Your task to perform on an android device: toggle translation in the chrome app Image 0: 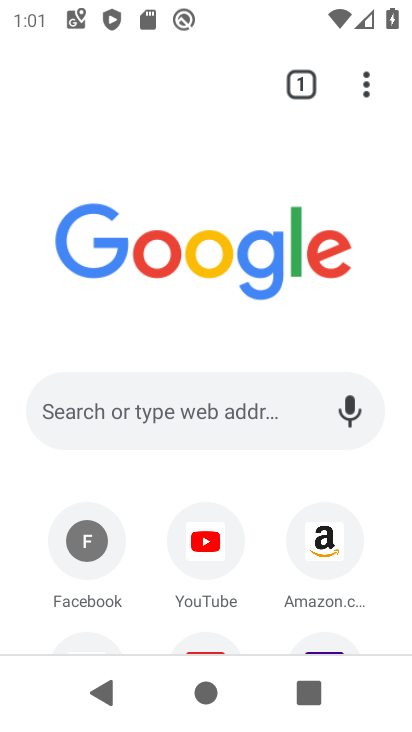
Step 0: press home button
Your task to perform on an android device: toggle translation in the chrome app Image 1: 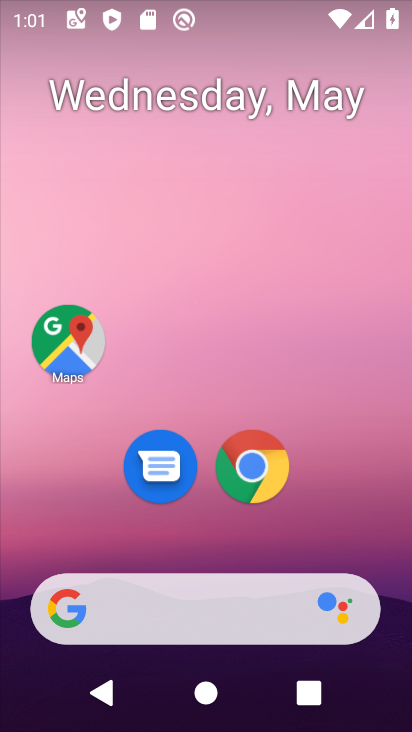
Step 1: click (259, 469)
Your task to perform on an android device: toggle translation in the chrome app Image 2: 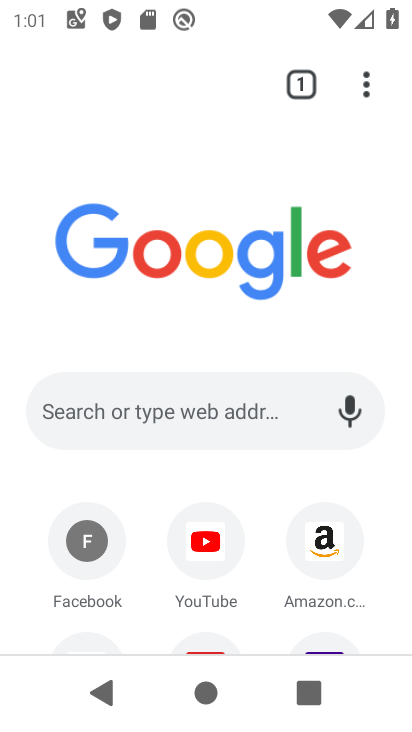
Step 2: click (358, 78)
Your task to perform on an android device: toggle translation in the chrome app Image 3: 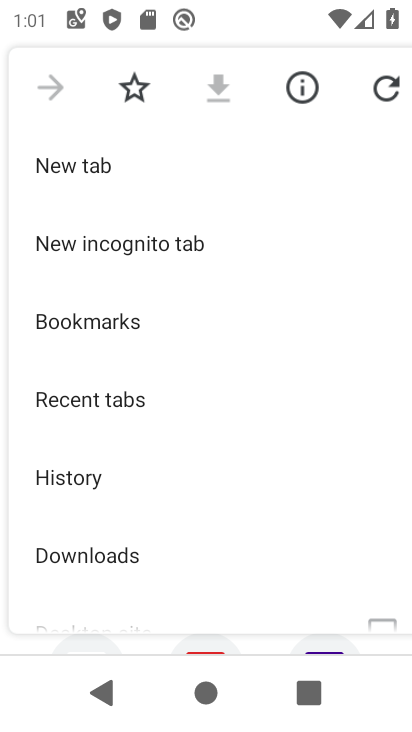
Step 3: drag from (153, 503) to (196, 92)
Your task to perform on an android device: toggle translation in the chrome app Image 4: 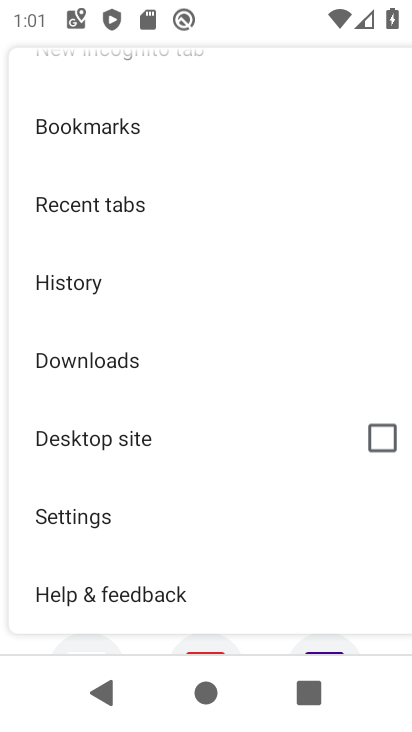
Step 4: click (89, 517)
Your task to perform on an android device: toggle translation in the chrome app Image 5: 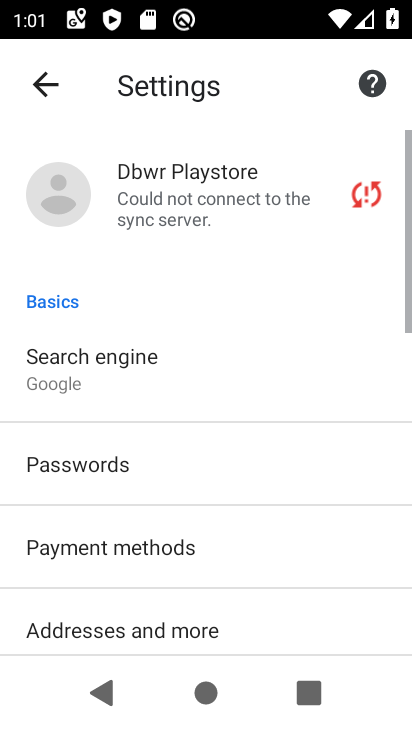
Step 5: drag from (271, 562) to (305, 38)
Your task to perform on an android device: toggle translation in the chrome app Image 6: 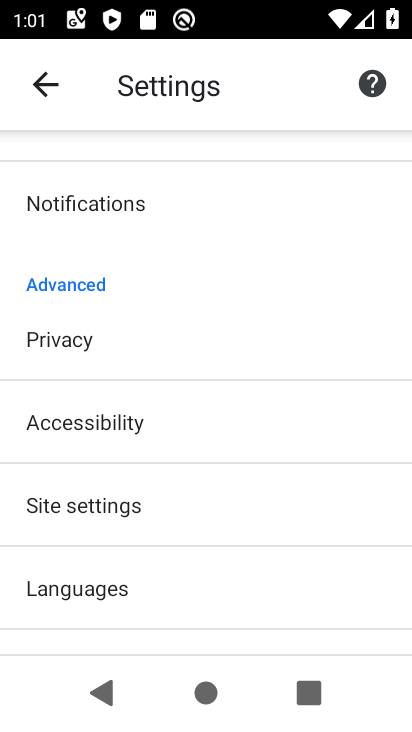
Step 6: click (128, 592)
Your task to perform on an android device: toggle translation in the chrome app Image 7: 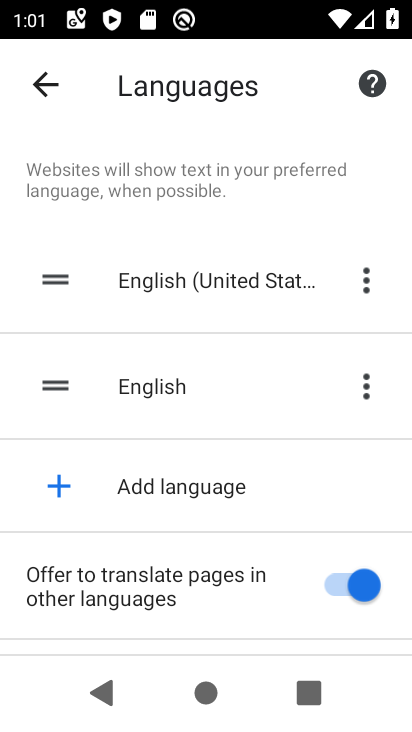
Step 7: click (356, 584)
Your task to perform on an android device: toggle translation in the chrome app Image 8: 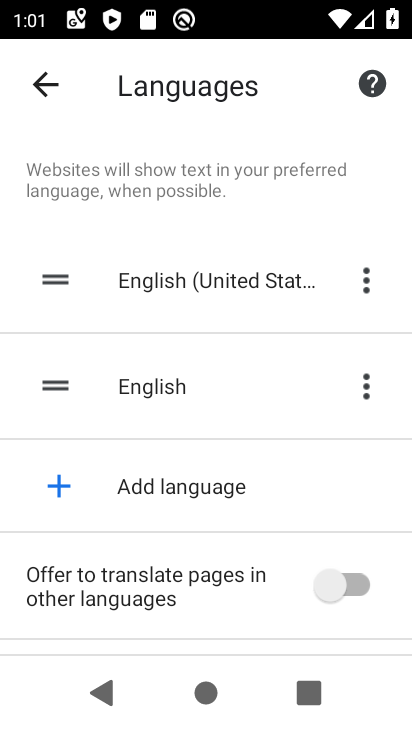
Step 8: task complete